Your task to perform on an android device: Open maps Image 0: 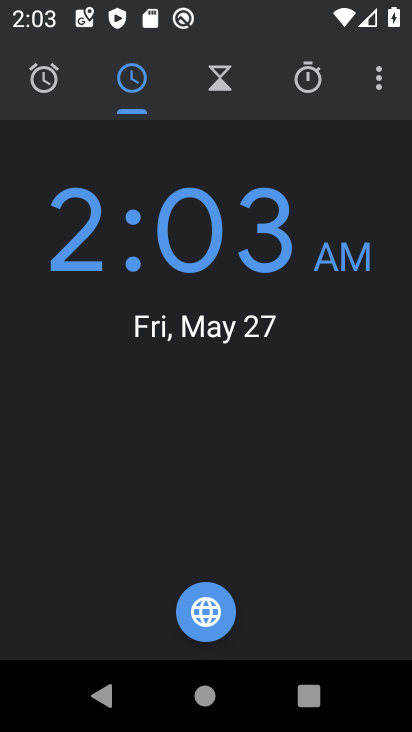
Step 0: press home button
Your task to perform on an android device: Open maps Image 1: 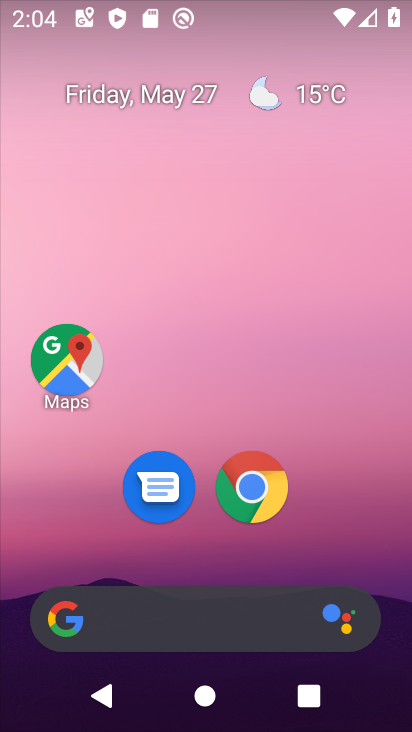
Step 1: click (37, 360)
Your task to perform on an android device: Open maps Image 2: 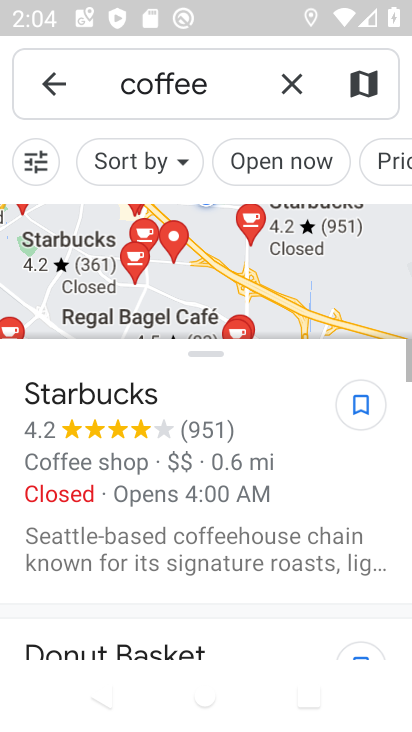
Step 2: task complete